Your task to perform on an android device: change keyboard looks Image 0: 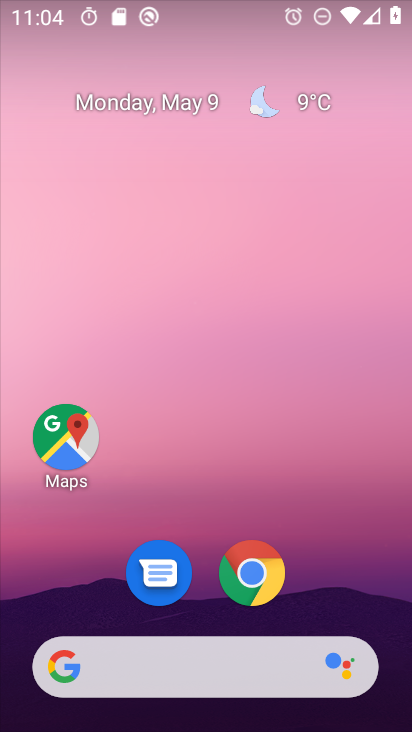
Step 0: drag from (352, 565) to (288, 0)
Your task to perform on an android device: change keyboard looks Image 1: 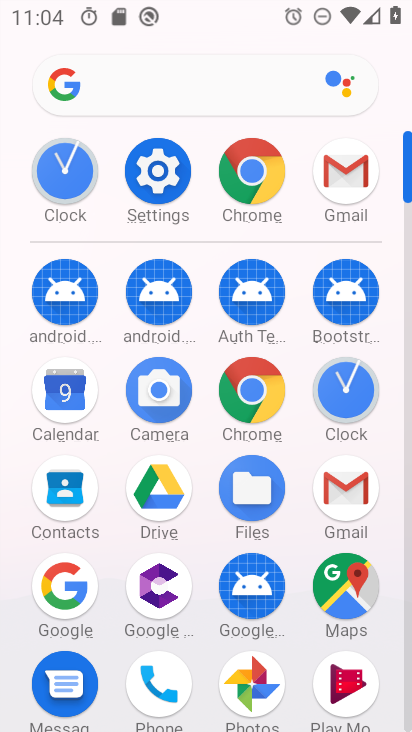
Step 1: click (167, 156)
Your task to perform on an android device: change keyboard looks Image 2: 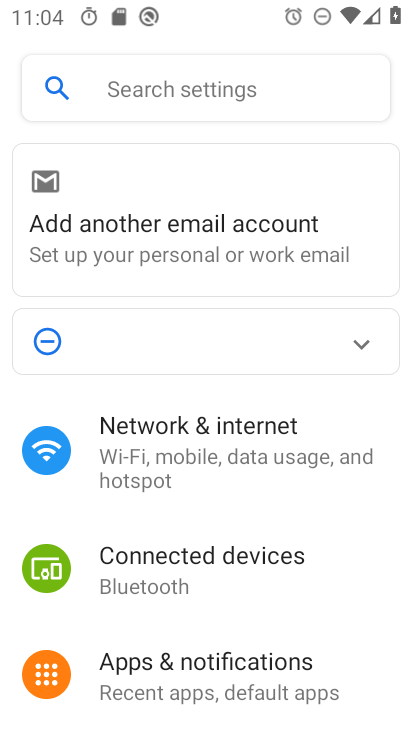
Step 2: drag from (248, 668) to (230, 172)
Your task to perform on an android device: change keyboard looks Image 3: 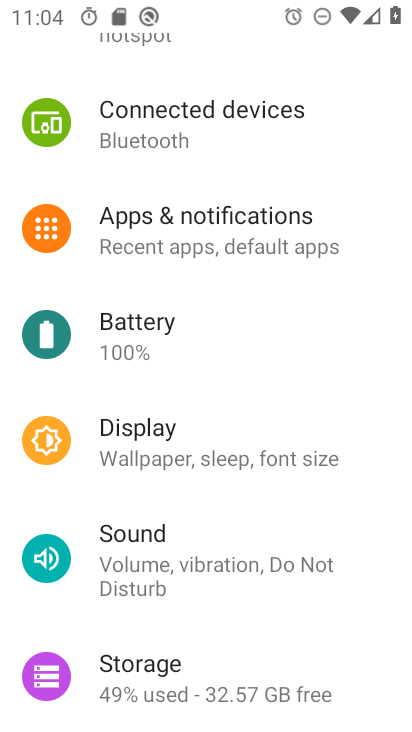
Step 3: drag from (223, 569) to (270, 129)
Your task to perform on an android device: change keyboard looks Image 4: 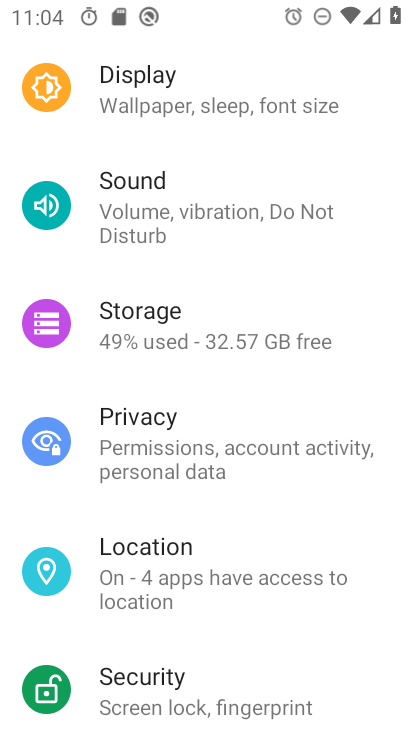
Step 4: drag from (219, 629) to (224, 276)
Your task to perform on an android device: change keyboard looks Image 5: 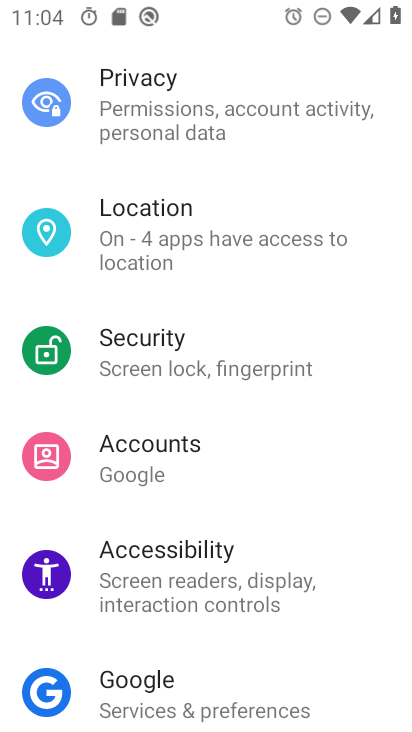
Step 5: drag from (175, 636) to (218, 304)
Your task to perform on an android device: change keyboard looks Image 6: 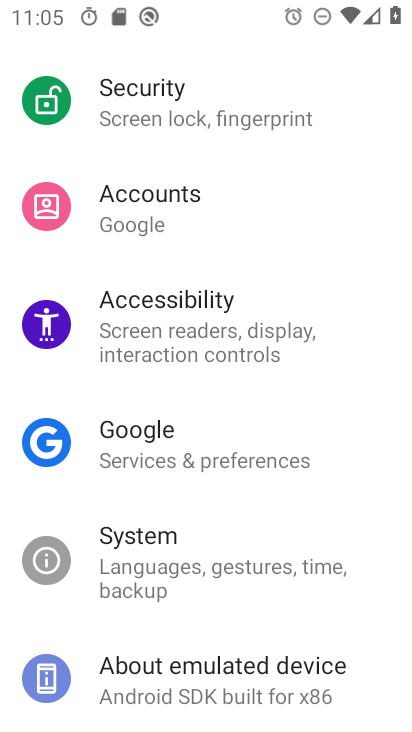
Step 6: click (180, 560)
Your task to perform on an android device: change keyboard looks Image 7: 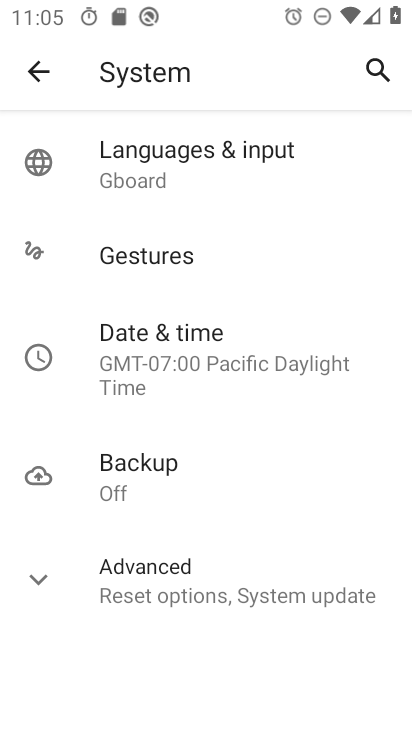
Step 7: click (158, 157)
Your task to perform on an android device: change keyboard looks Image 8: 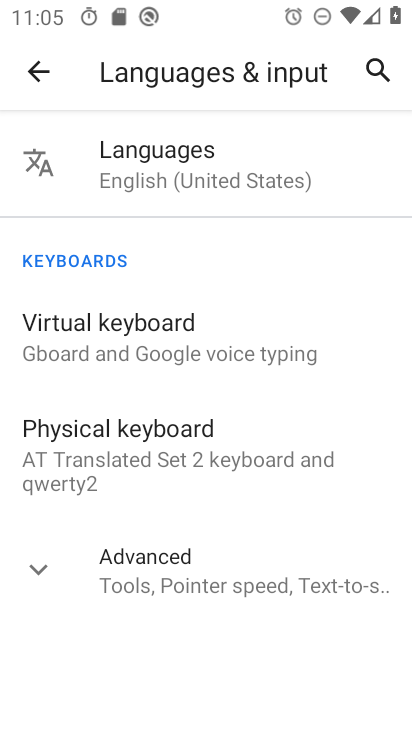
Step 8: click (153, 347)
Your task to perform on an android device: change keyboard looks Image 9: 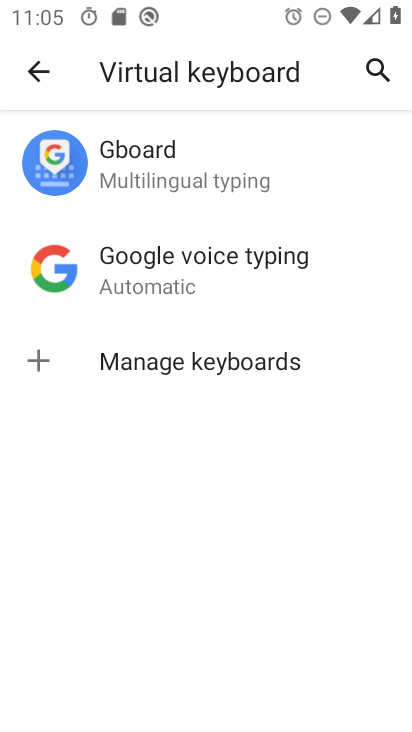
Step 9: click (164, 170)
Your task to perform on an android device: change keyboard looks Image 10: 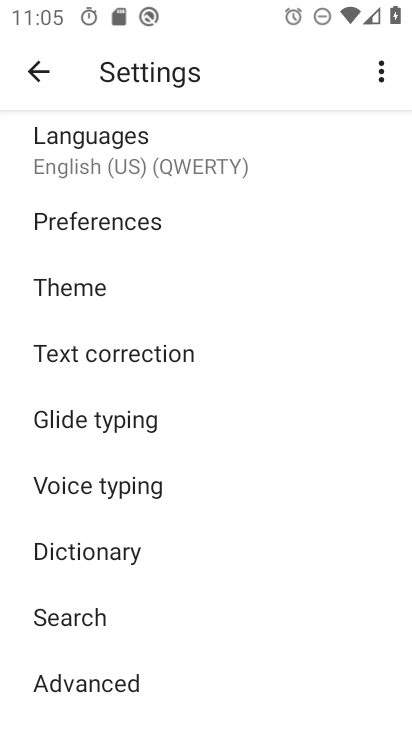
Step 10: click (86, 296)
Your task to perform on an android device: change keyboard looks Image 11: 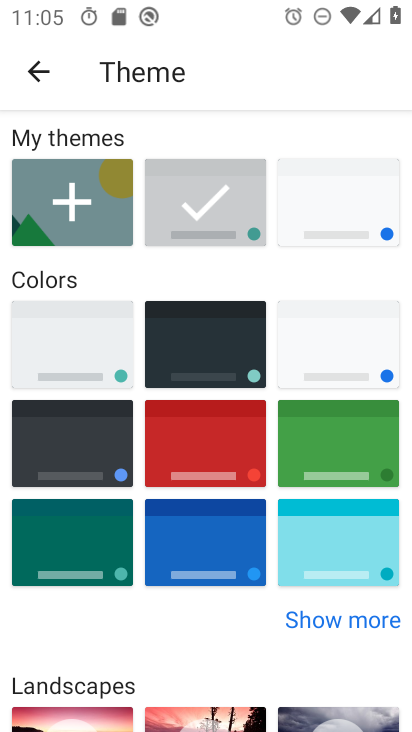
Step 11: click (371, 191)
Your task to perform on an android device: change keyboard looks Image 12: 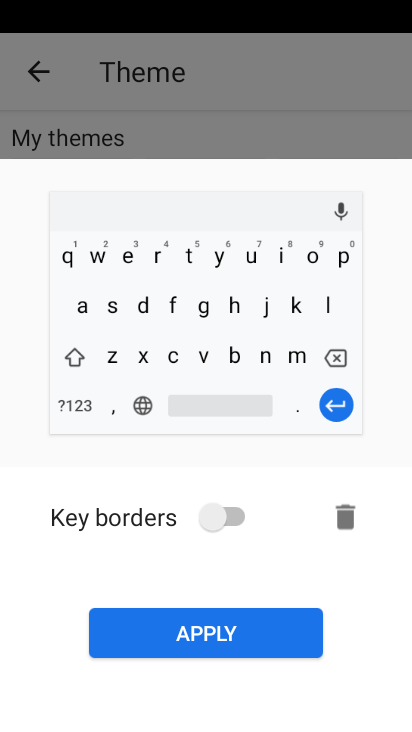
Step 12: click (231, 650)
Your task to perform on an android device: change keyboard looks Image 13: 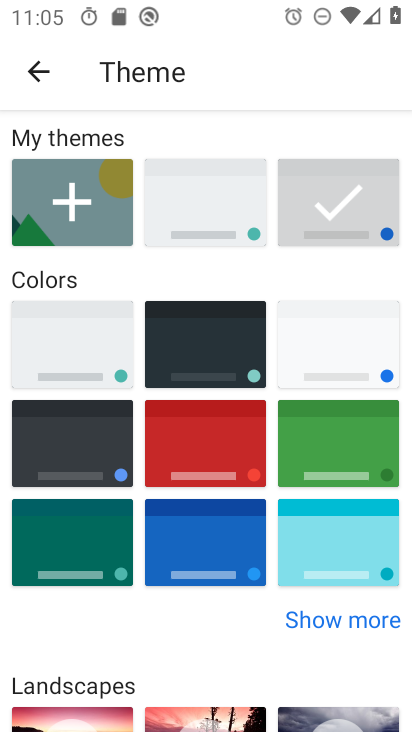
Step 13: task complete